Your task to perform on an android device: toggle priority inbox in the gmail app Image 0: 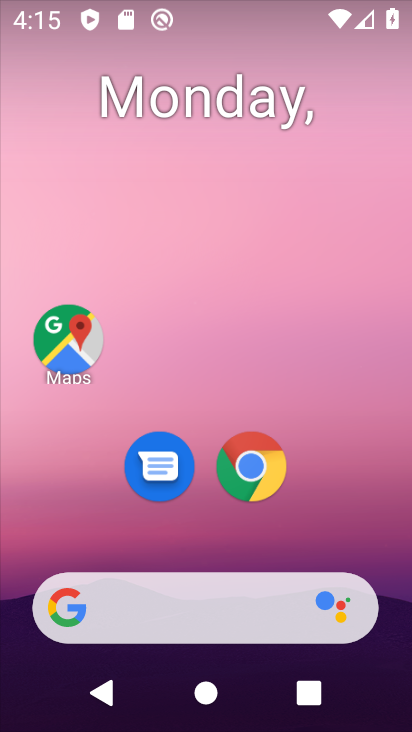
Step 0: drag from (356, 483) to (263, 55)
Your task to perform on an android device: toggle priority inbox in the gmail app Image 1: 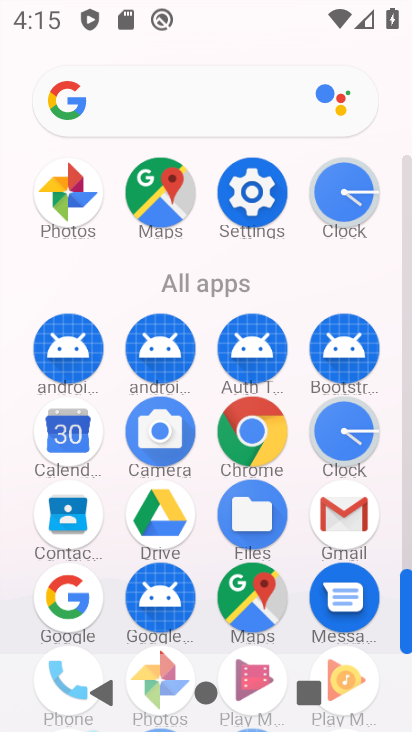
Step 1: click (345, 507)
Your task to perform on an android device: toggle priority inbox in the gmail app Image 2: 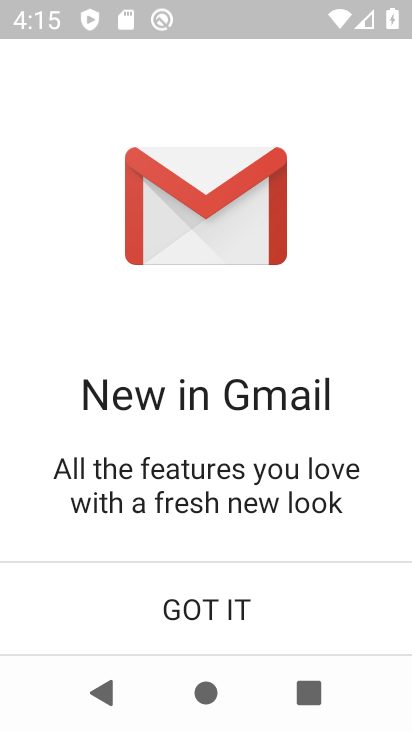
Step 2: click (191, 618)
Your task to perform on an android device: toggle priority inbox in the gmail app Image 3: 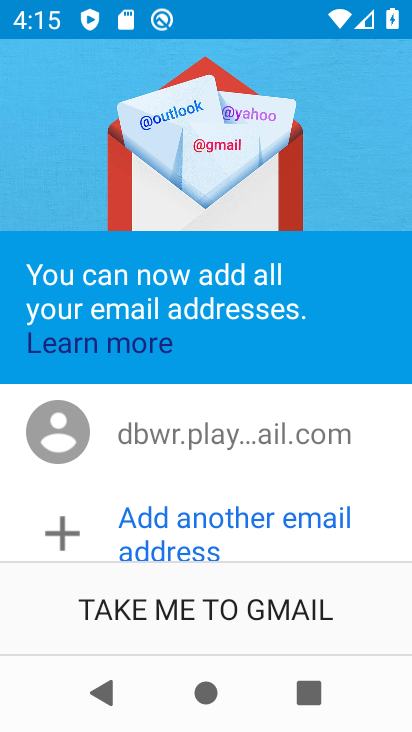
Step 3: click (205, 603)
Your task to perform on an android device: toggle priority inbox in the gmail app Image 4: 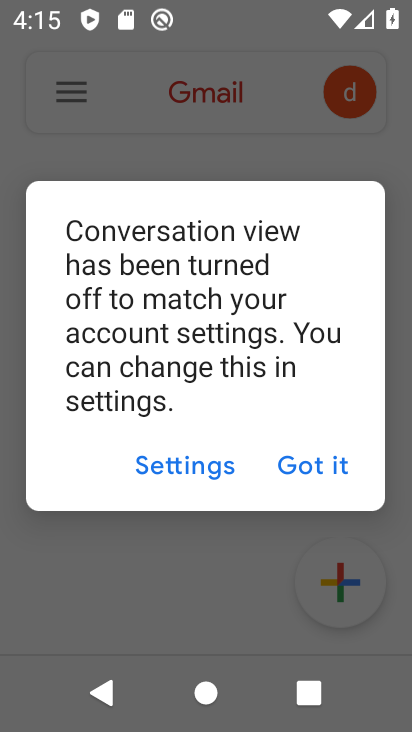
Step 4: click (318, 456)
Your task to perform on an android device: toggle priority inbox in the gmail app Image 5: 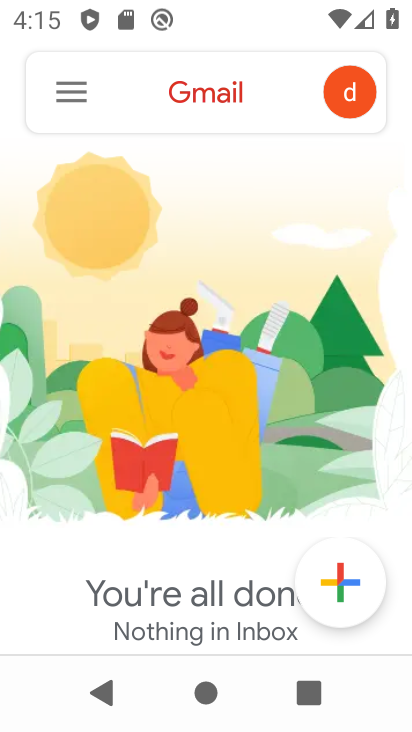
Step 5: click (70, 84)
Your task to perform on an android device: toggle priority inbox in the gmail app Image 6: 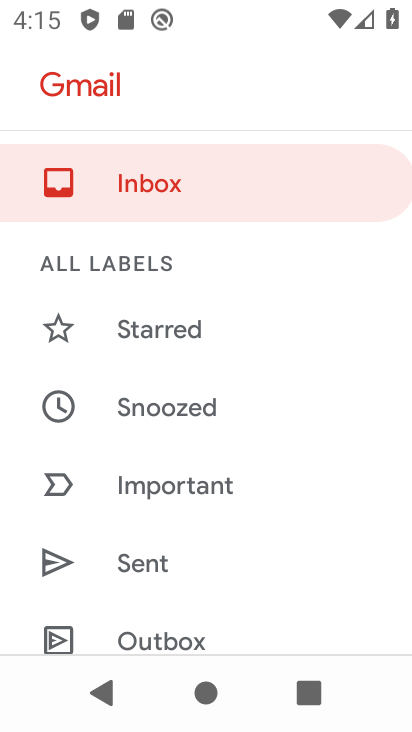
Step 6: drag from (215, 594) to (276, 149)
Your task to perform on an android device: toggle priority inbox in the gmail app Image 7: 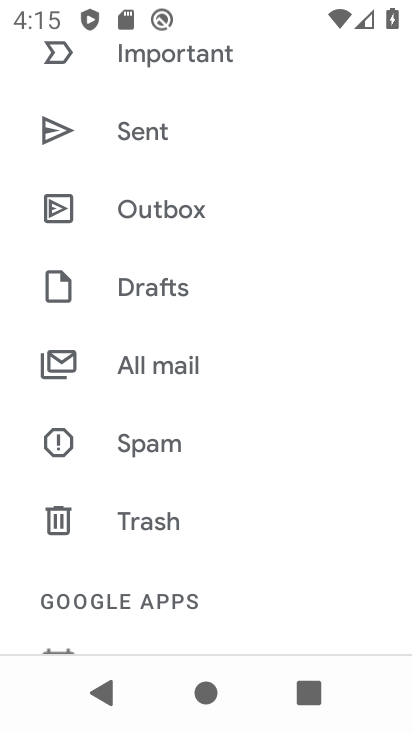
Step 7: drag from (218, 566) to (263, 144)
Your task to perform on an android device: toggle priority inbox in the gmail app Image 8: 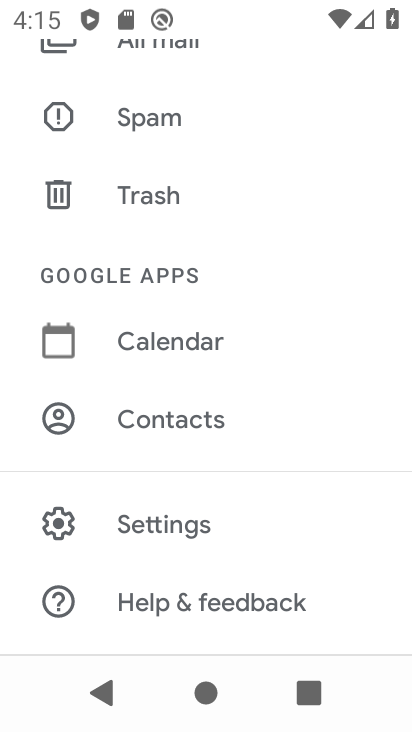
Step 8: click (199, 528)
Your task to perform on an android device: toggle priority inbox in the gmail app Image 9: 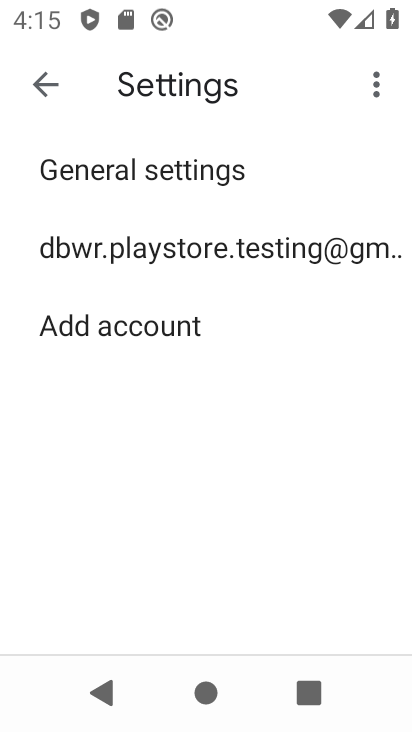
Step 9: click (263, 255)
Your task to perform on an android device: toggle priority inbox in the gmail app Image 10: 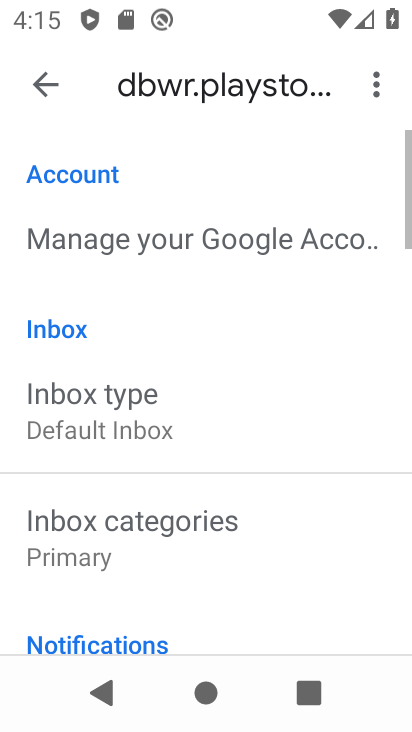
Step 10: drag from (244, 525) to (281, 64)
Your task to perform on an android device: toggle priority inbox in the gmail app Image 11: 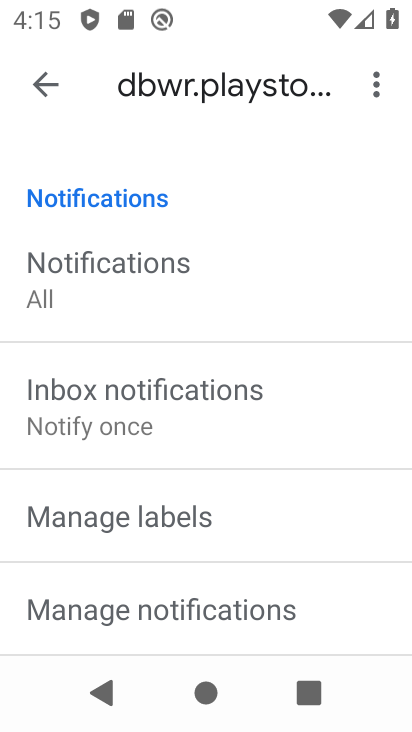
Step 11: drag from (303, 496) to (298, 104)
Your task to perform on an android device: toggle priority inbox in the gmail app Image 12: 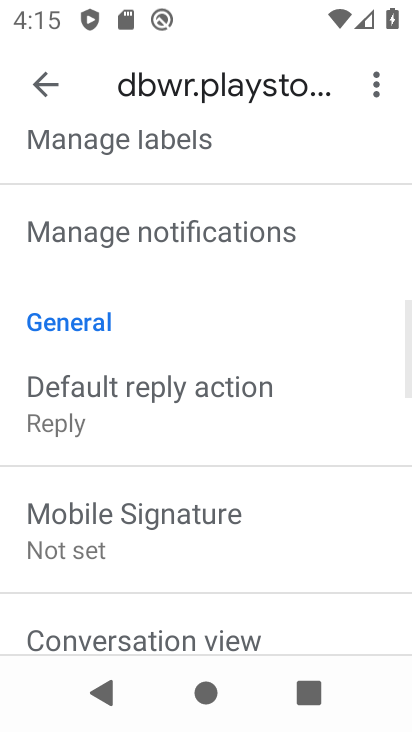
Step 12: drag from (247, 523) to (270, 50)
Your task to perform on an android device: toggle priority inbox in the gmail app Image 13: 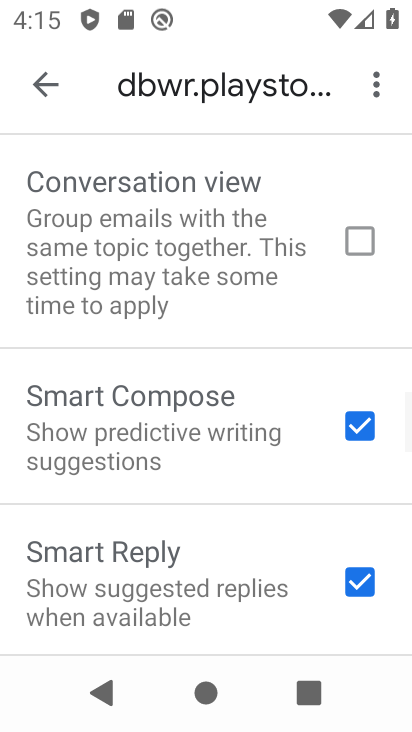
Step 13: drag from (231, 491) to (273, 77)
Your task to perform on an android device: toggle priority inbox in the gmail app Image 14: 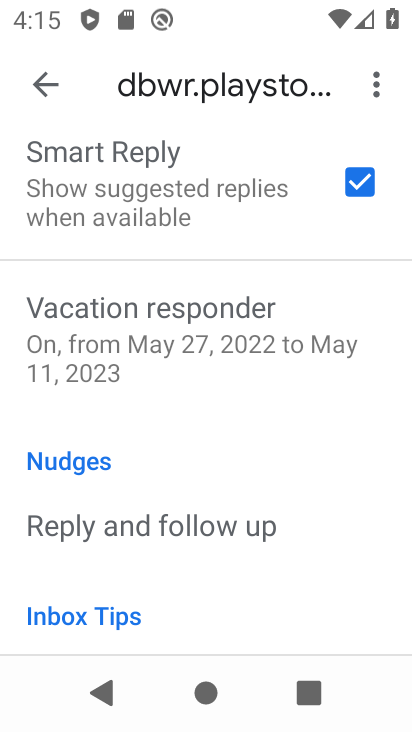
Step 14: drag from (200, 511) to (234, 91)
Your task to perform on an android device: toggle priority inbox in the gmail app Image 15: 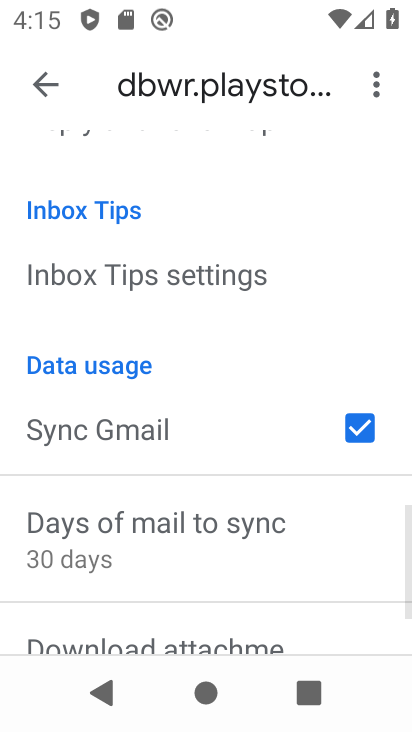
Step 15: drag from (204, 524) to (251, 90)
Your task to perform on an android device: toggle priority inbox in the gmail app Image 16: 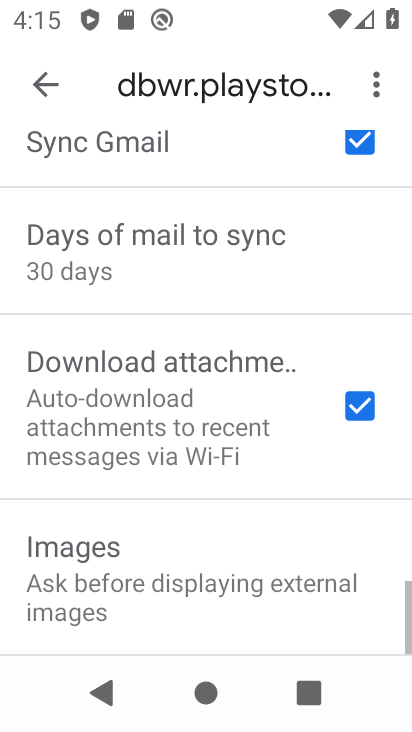
Step 16: drag from (181, 549) to (197, 156)
Your task to perform on an android device: toggle priority inbox in the gmail app Image 17: 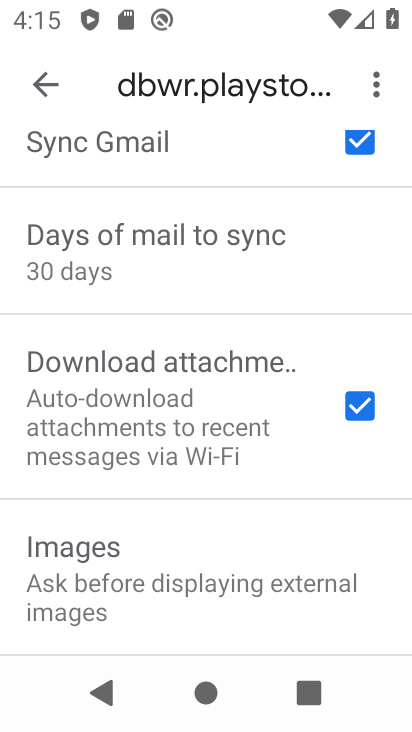
Step 17: drag from (263, 231) to (248, 522)
Your task to perform on an android device: toggle priority inbox in the gmail app Image 18: 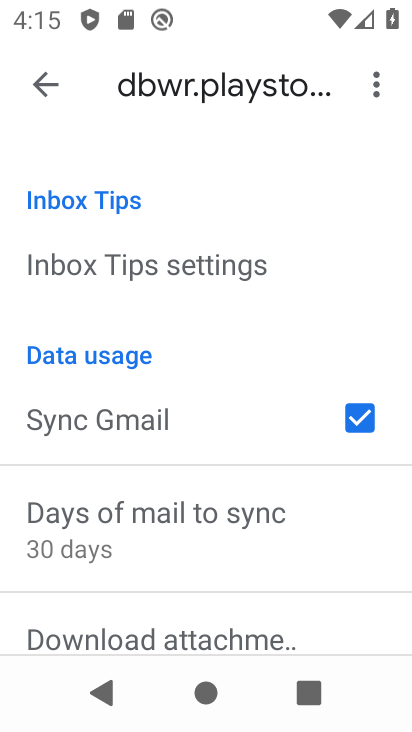
Step 18: drag from (217, 163) to (219, 592)
Your task to perform on an android device: toggle priority inbox in the gmail app Image 19: 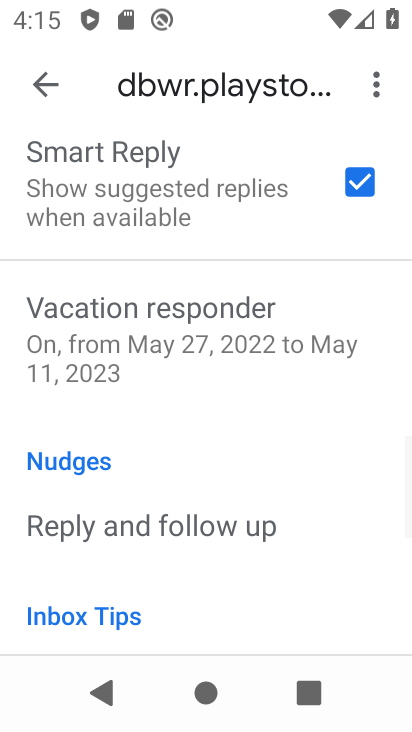
Step 19: drag from (201, 183) to (256, 655)
Your task to perform on an android device: toggle priority inbox in the gmail app Image 20: 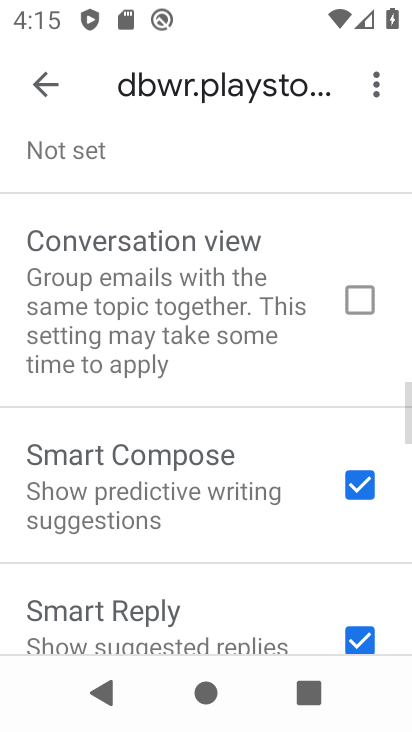
Step 20: drag from (215, 230) to (252, 598)
Your task to perform on an android device: toggle priority inbox in the gmail app Image 21: 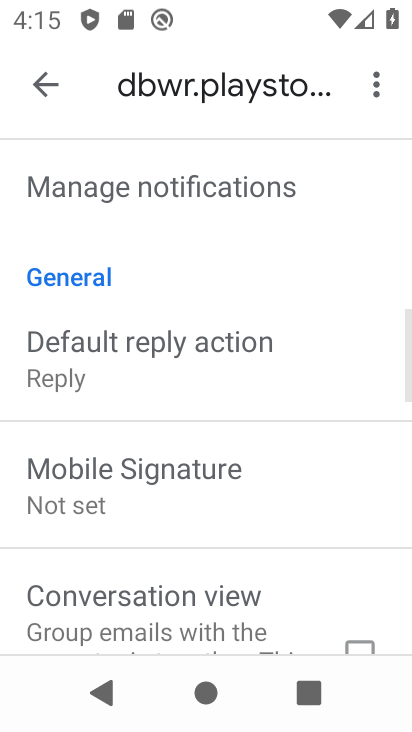
Step 21: drag from (203, 231) to (305, 582)
Your task to perform on an android device: toggle priority inbox in the gmail app Image 22: 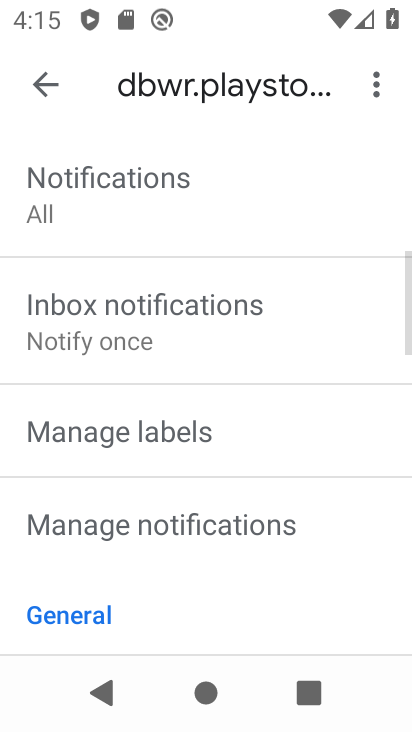
Step 22: drag from (229, 227) to (251, 605)
Your task to perform on an android device: toggle priority inbox in the gmail app Image 23: 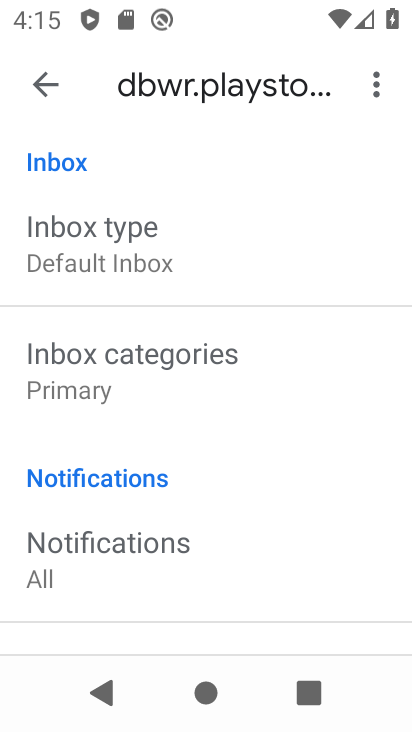
Step 23: drag from (267, 218) to (259, 603)
Your task to perform on an android device: toggle priority inbox in the gmail app Image 24: 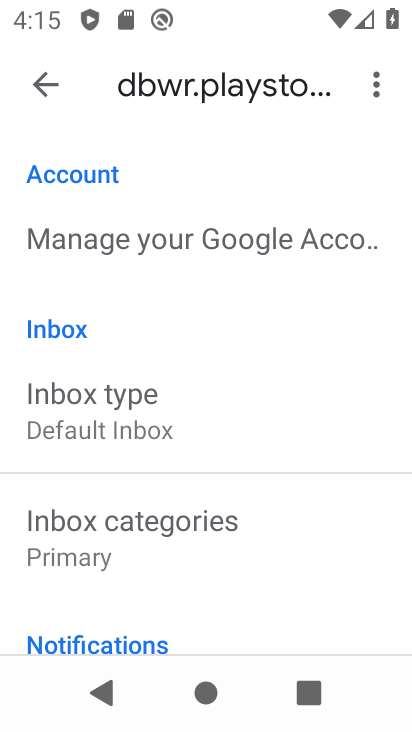
Step 24: click (139, 399)
Your task to perform on an android device: toggle priority inbox in the gmail app Image 25: 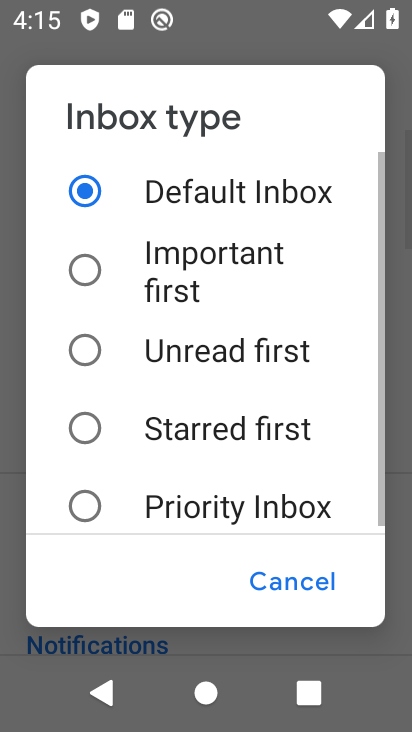
Step 25: click (210, 502)
Your task to perform on an android device: toggle priority inbox in the gmail app Image 26: 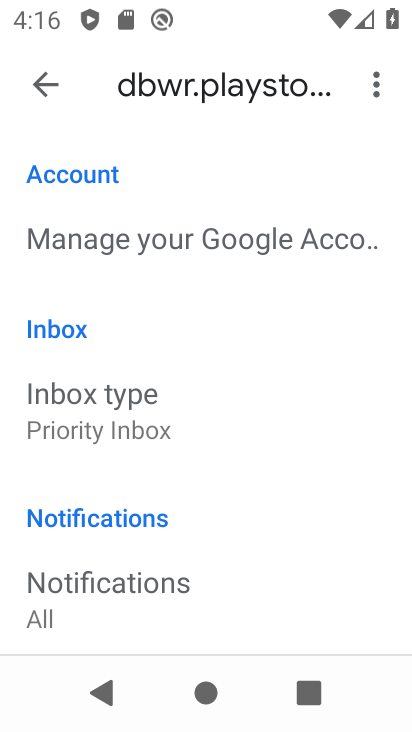
Step 26: task complete